Your task to perform on an android device: install app "Google Find My Device" Image 0: 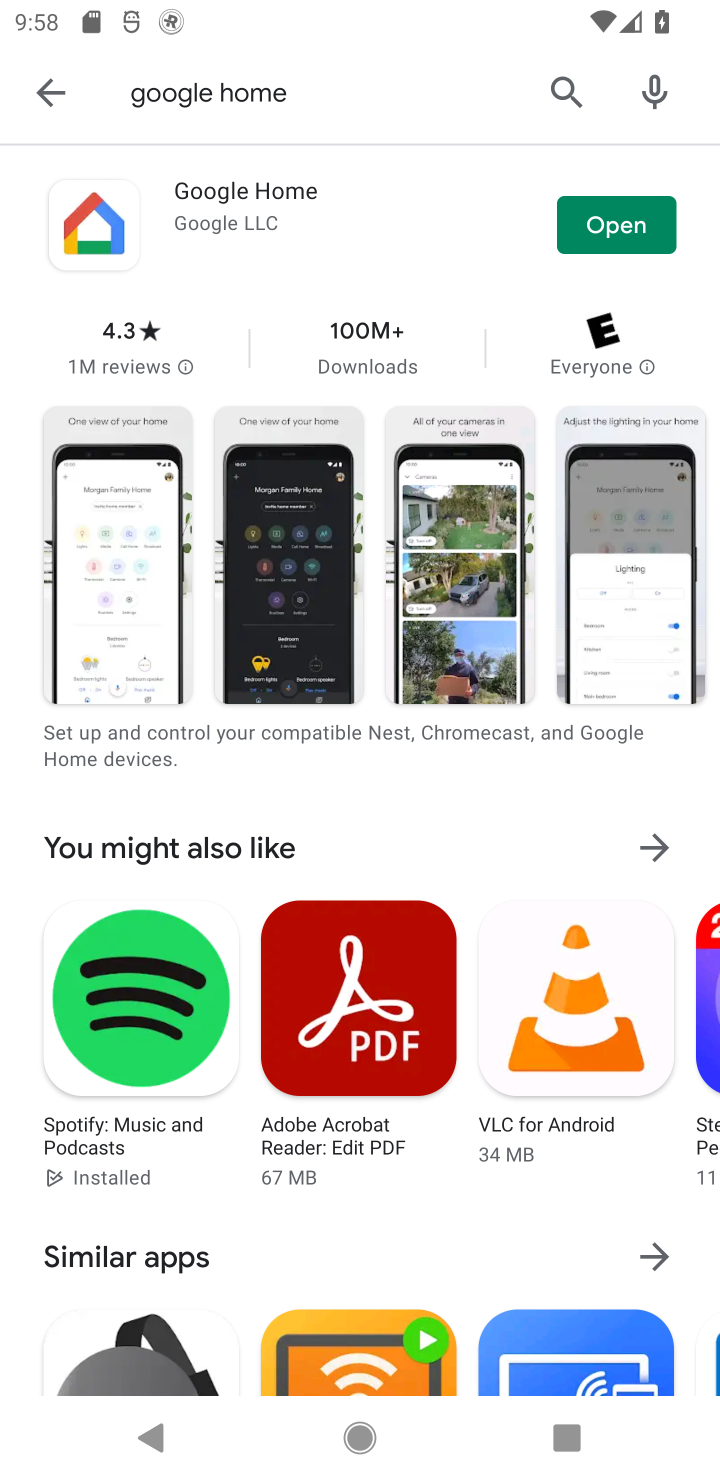
Step 0: click (546, 112)
Your task to perform on an android device: install app "Google Find My Device" Image 1: 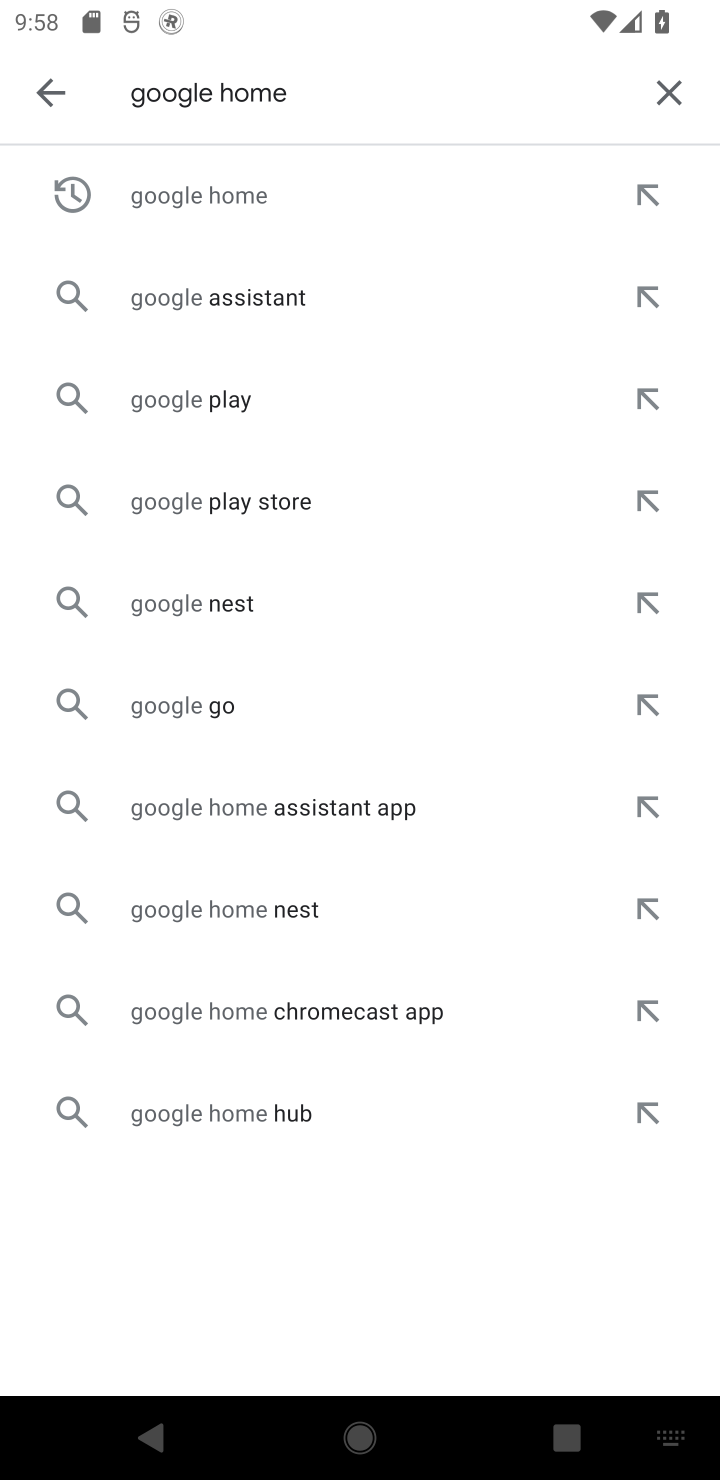
Step 1: click (661, 100)
Your task to perform on an android device: install app "Google Find My Device" Image 2: 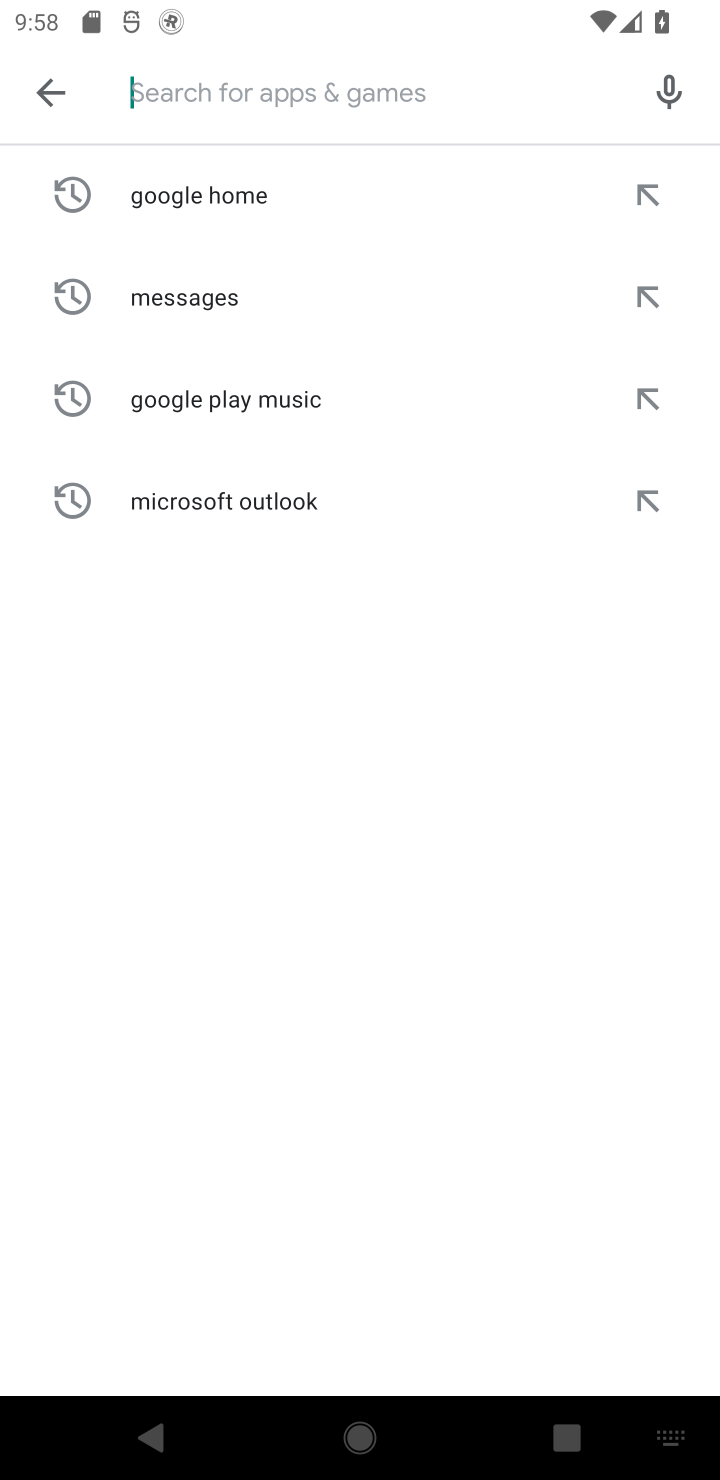
Step 2: type "Google Find My Device"
Your task to perform on an android device: install app "Google Find My Device" Image 3: 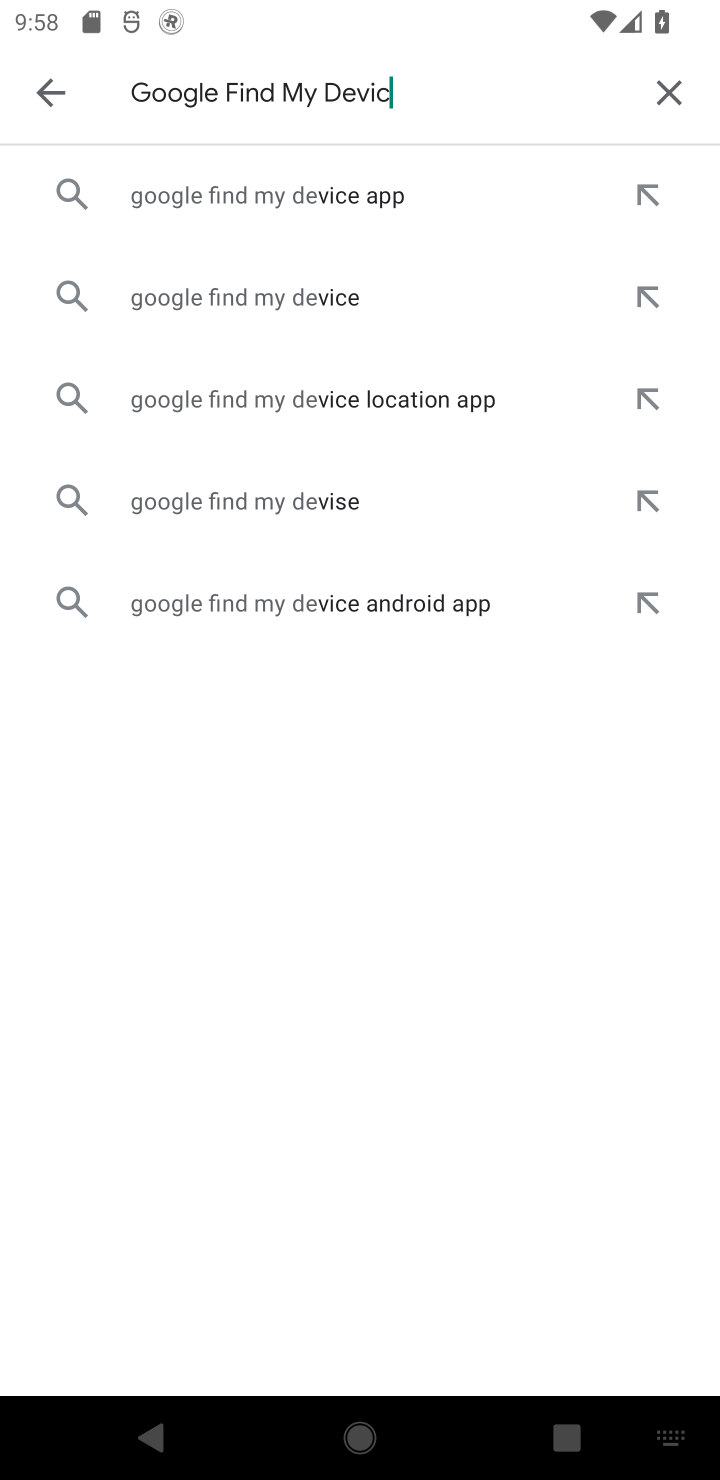
Step 3: type ""
Your task to perform on an android device: install app "Google Find My Device" Image 4: 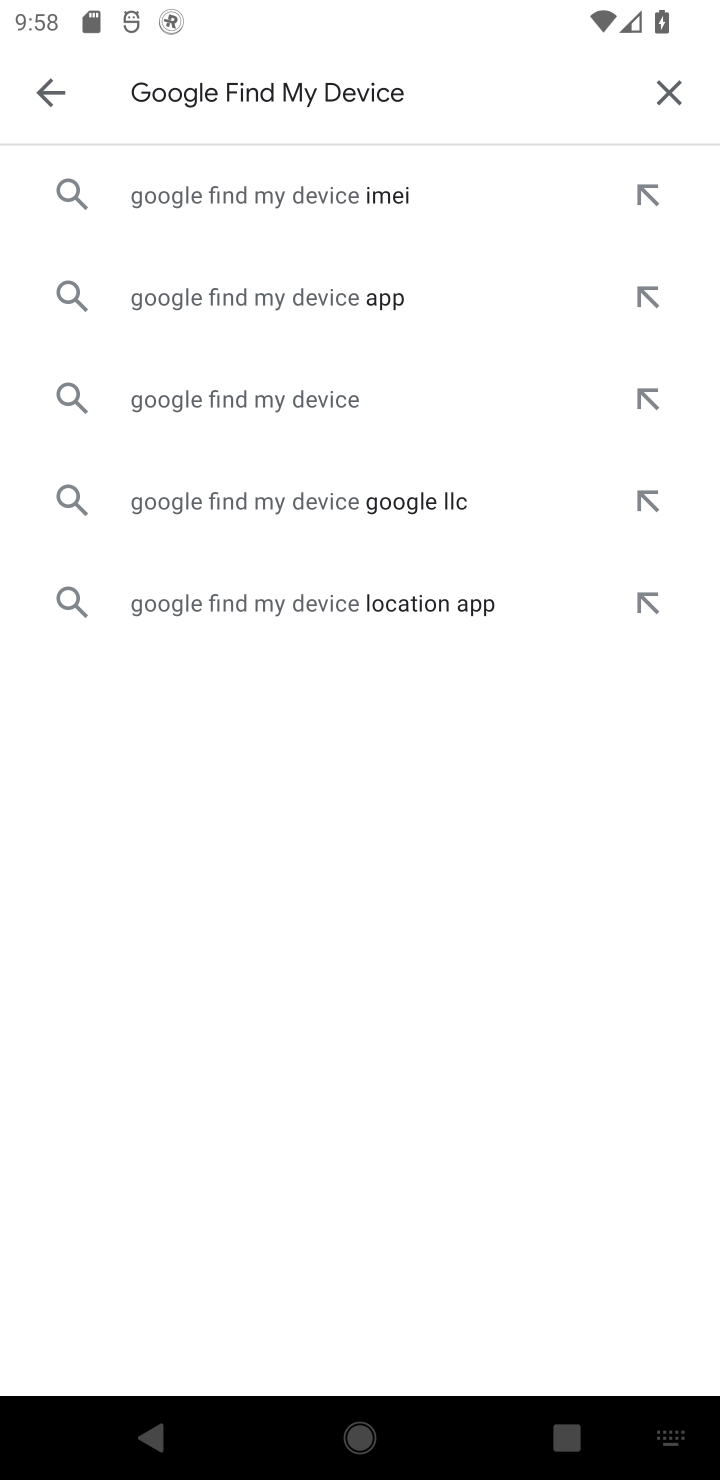
Step 4: click (412, 398)
Your task to perform on an android device: install app "Google Find My Device" Image 5: 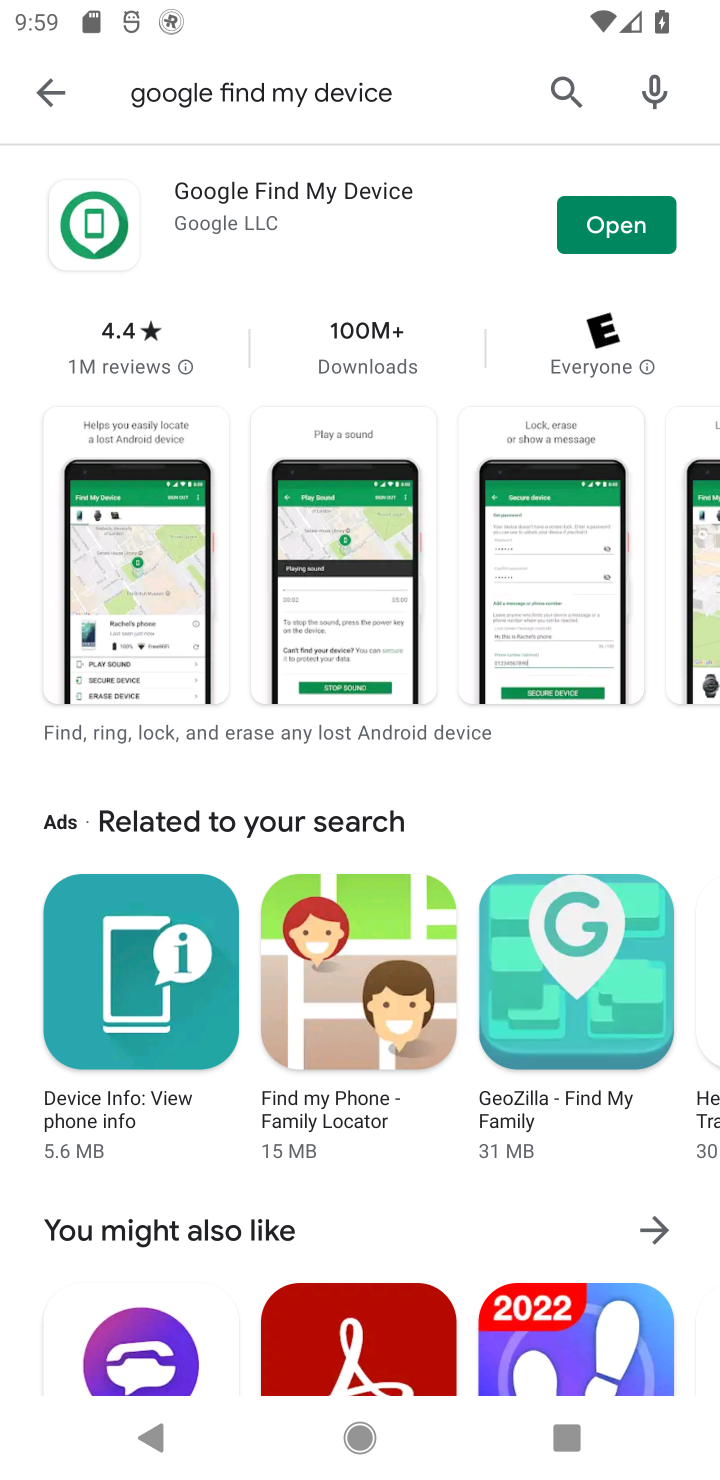
Step 5: task complete